Your task to perform on an android device: Open calendar and show me the fourth week of next month Image 0: 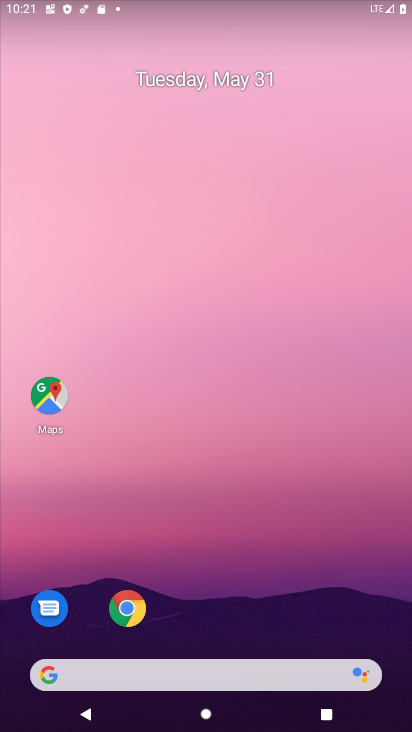
Step 0: drag from (250, 668) to (325, 22)
Your task to perform on an android device: Open calendar and show me the fourth week of next month Image 1: 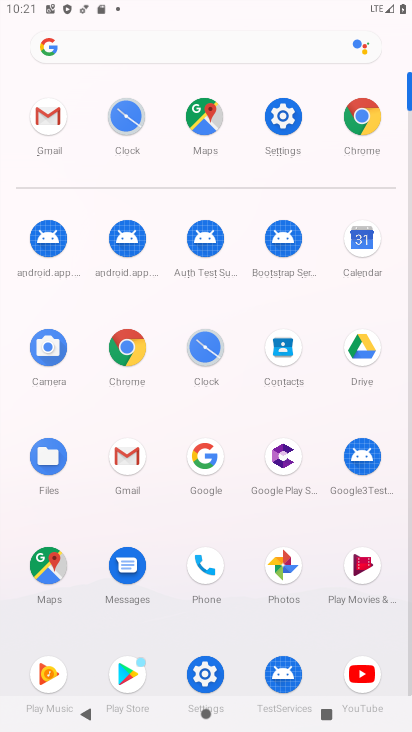
Step 1: click (337, 264)
Your task to perform on an android device: Open calendar and show me the fourth week of next month Image 2: 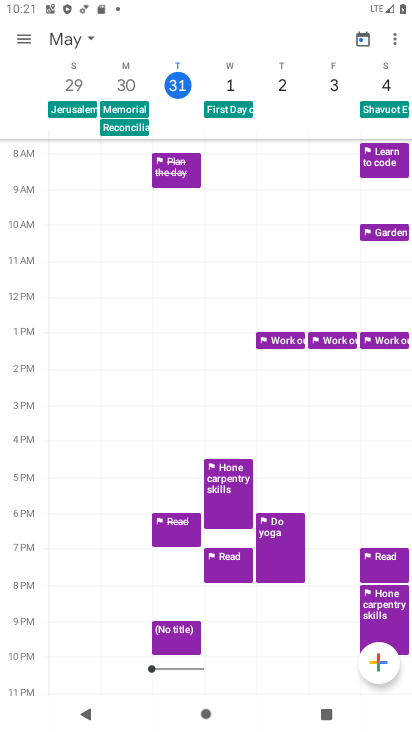
Step 2: task complete